Your task to perform on an android device: toggle wifi Image 0: 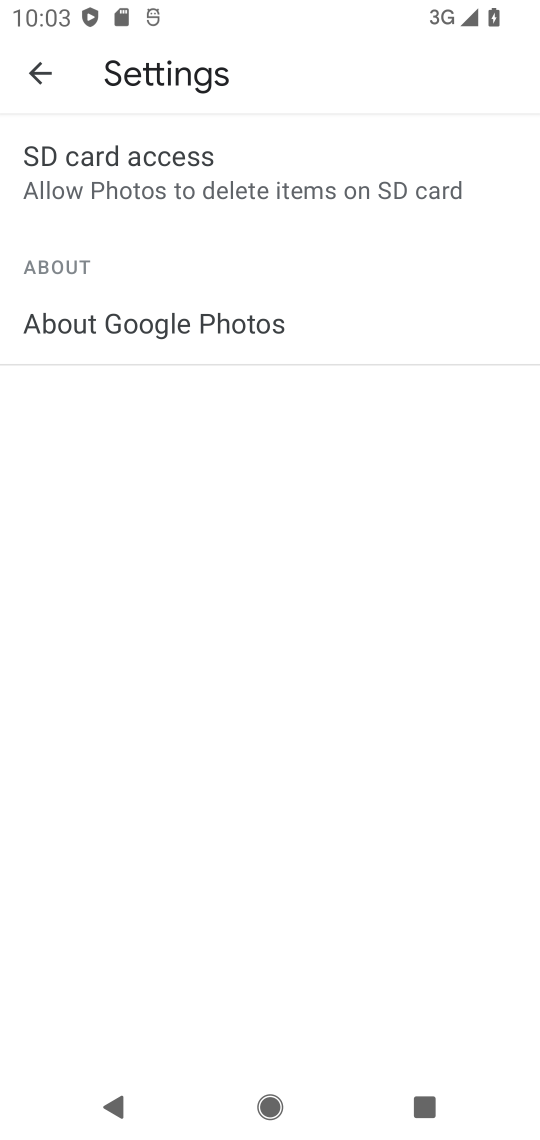
Step 0: press home button
Your task to perform on an android device: toggle wifi Image 1: 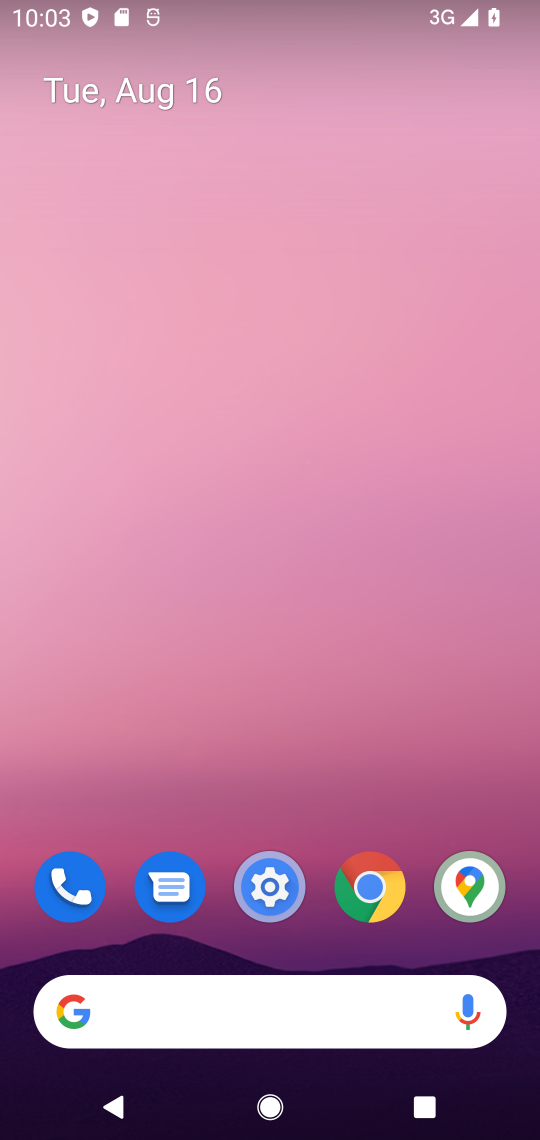
Step 1: drag from (428, 756) to (431, 122)
Your task to perform on an android device: toggle wifi Image 2: 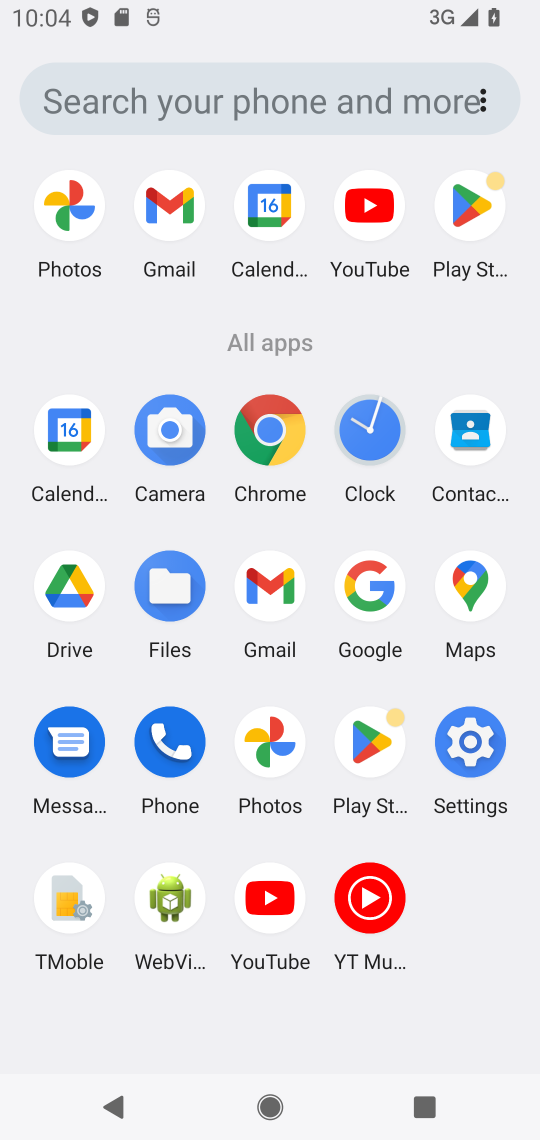
Step 2: click (460, 756)
Your task to perform on an android device: toggle wifi Image 3: 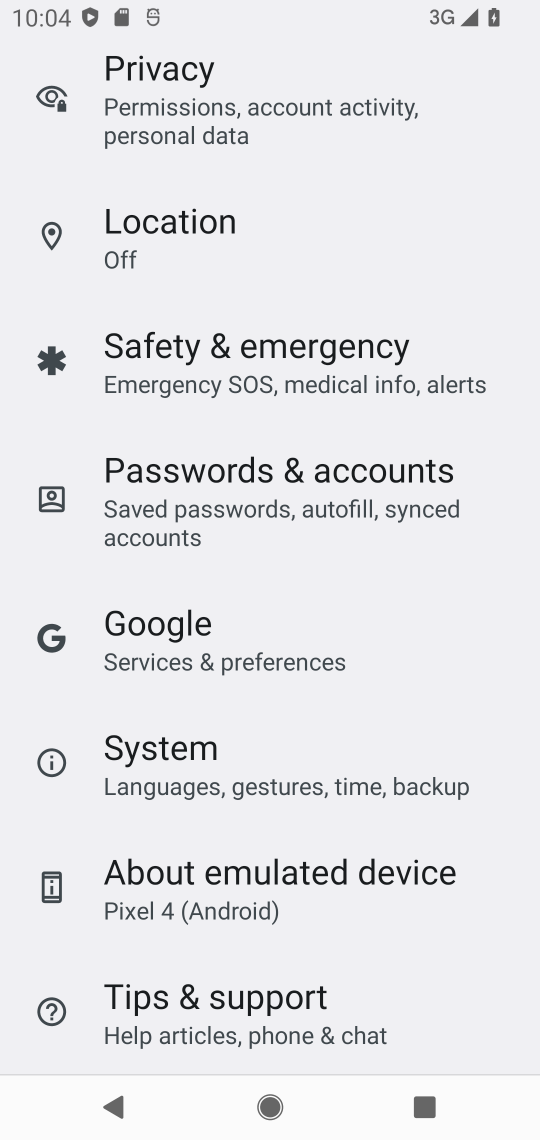
Step 3: drag from (492, 588) to (502, 784)
Your task to perform on an android device: toggle wifi Image 4: 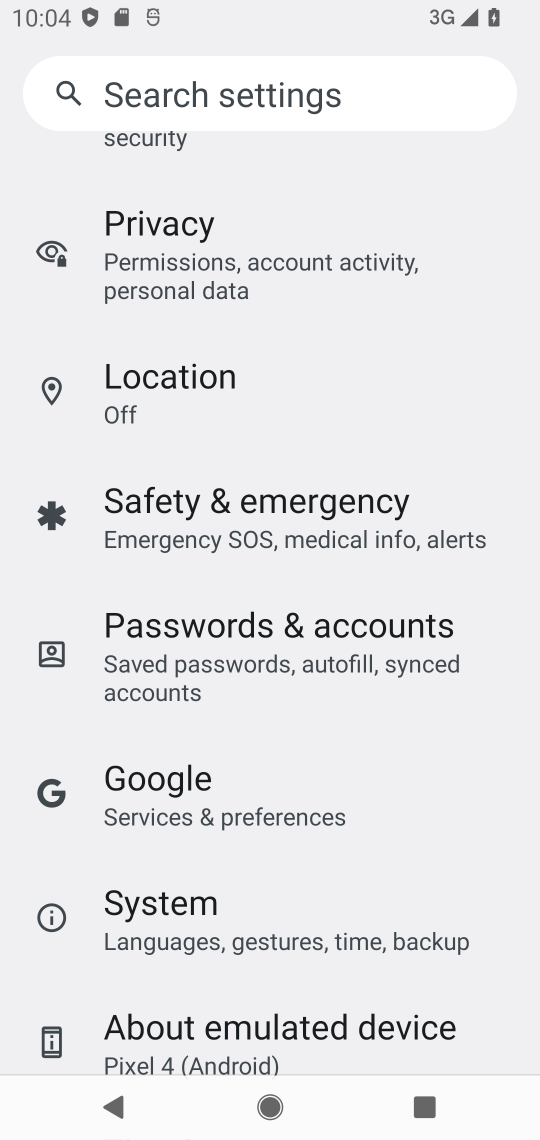
Step 4: drag from (505, 605) to (508, 740)
Your task to perform on an android device: toggle wifi Image 5: 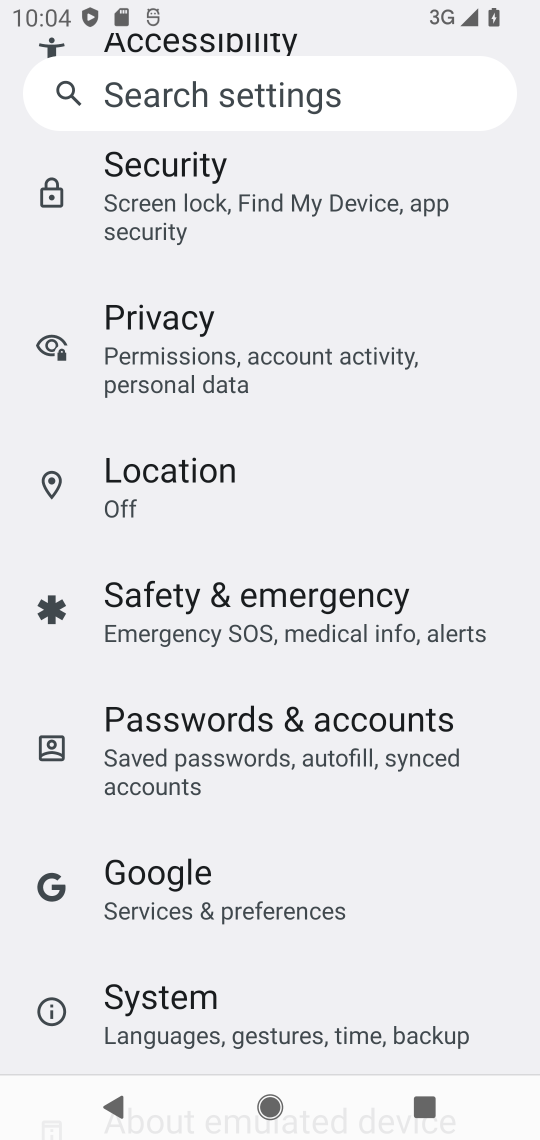
Step 5: drag from (504, 541) to (513, 738)
Your task to perform on an android device: toggle wifi Image 6: 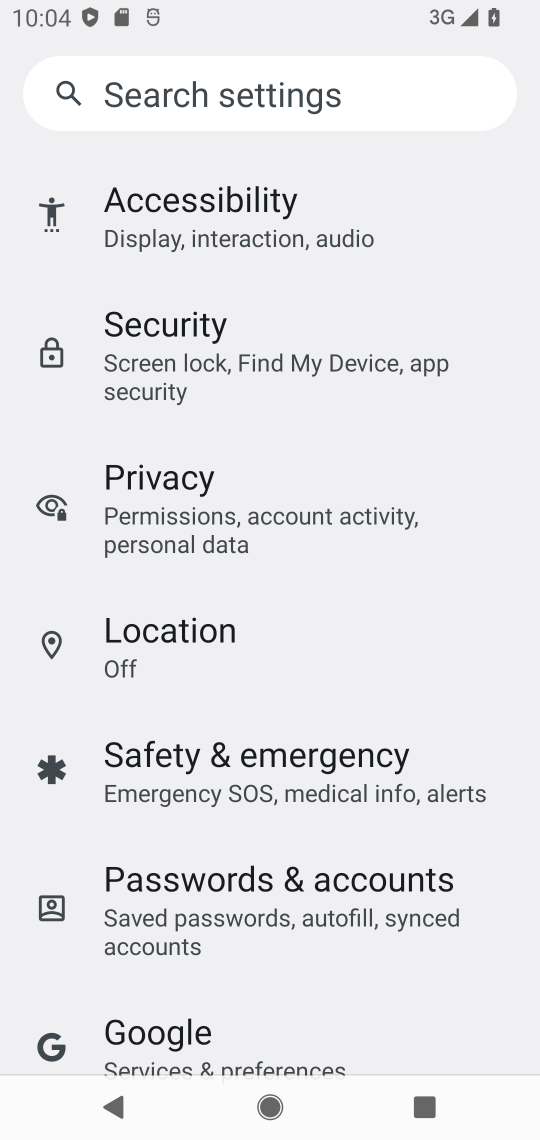
Step 6: drag from (502, 489) to (503, 686)
Your task to perform on an android device: toggle wifi Image 7: 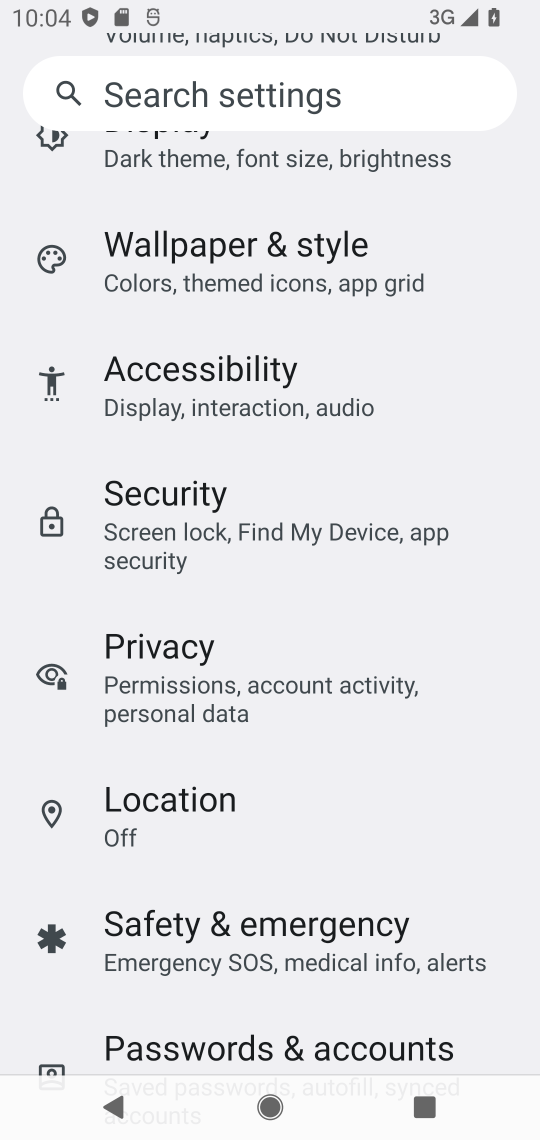
Step 7: drag from (481, 448) to (486, 675)
Your task to perform on an android device: toggle wifi Image 8: 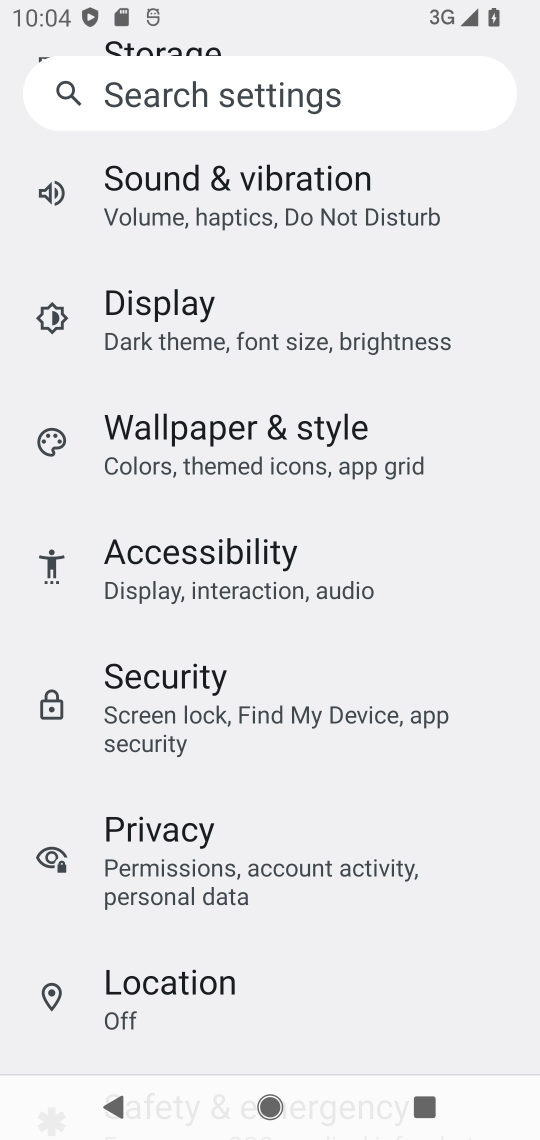
Step 8: drag from (483, 393) to (475, 655)
Your task to perform on an android device: toggle wifi Image 9: 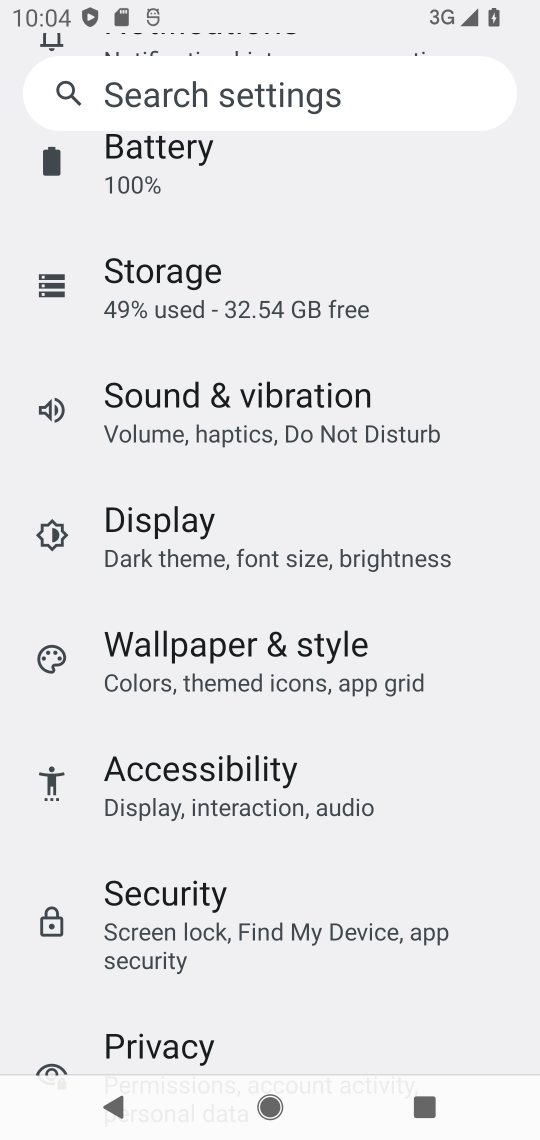
Step 9: drag from (499, 331) to (487, 563)
Your task to perform on an android device: toggle wifi Image 10: 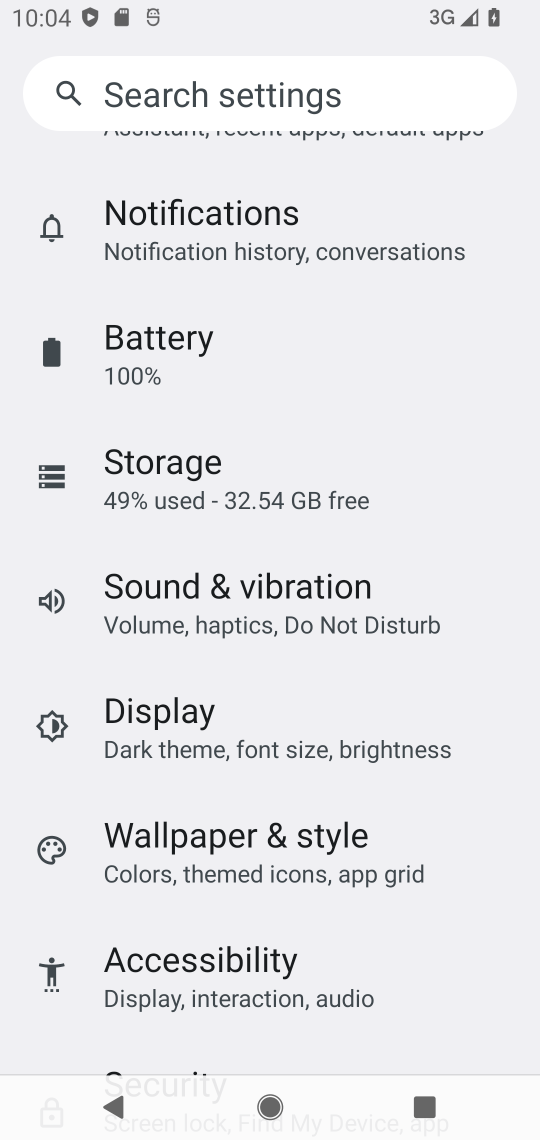
Step 10: drag from (494, 354) to (479, 554)
Your task to perform on an android device: toggle wifi Image 11: 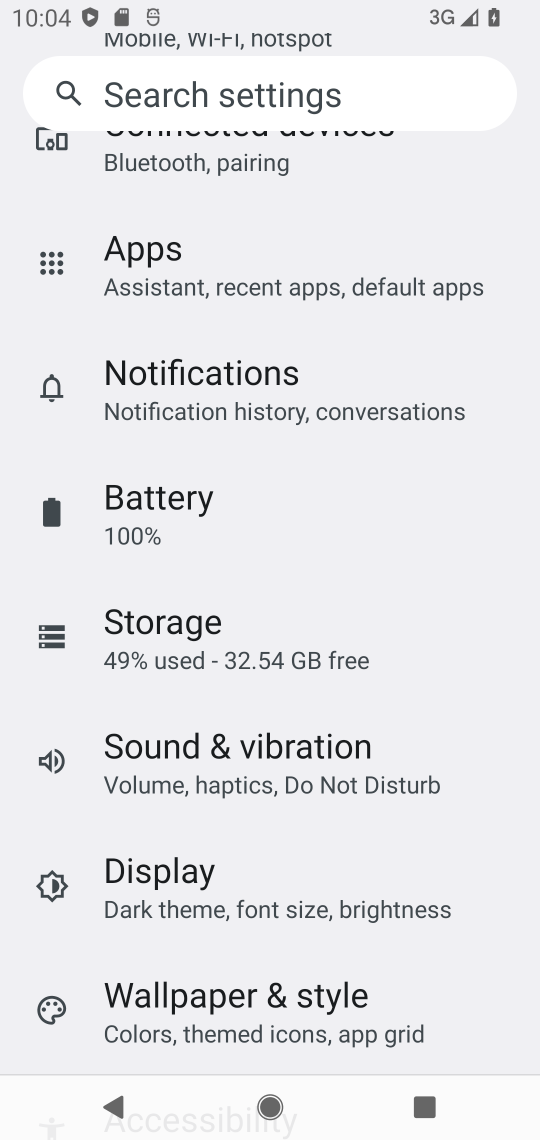
Step 11: drag from (482, 324) to (471, 555)
Your task to perform on an android device: toggle wifi Image 12: 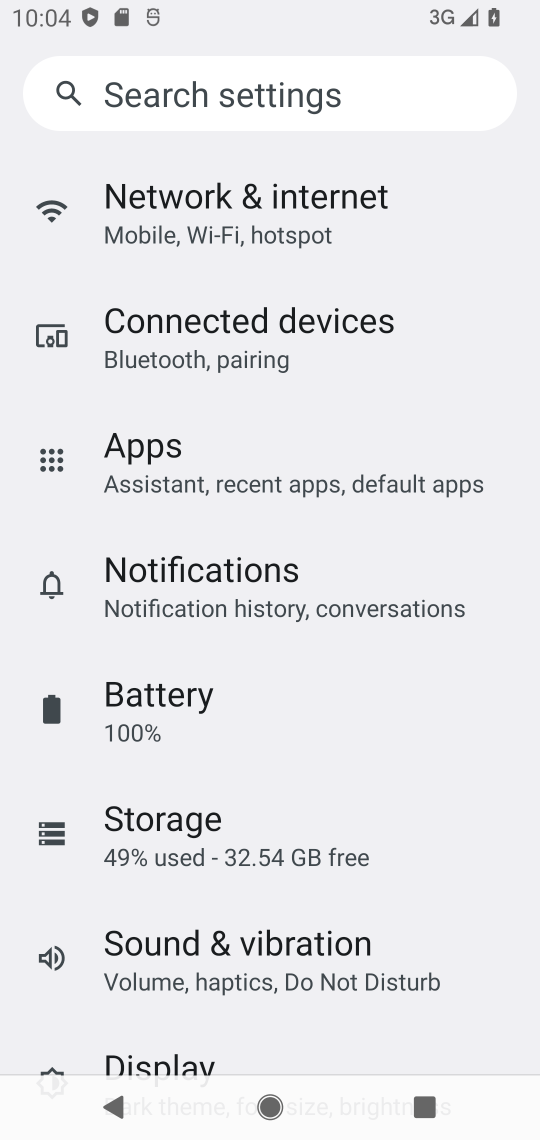
Step 12: drag from (443, 250) to (441, 511)
Your task to perform on an android device: toggle wifi Image 13: 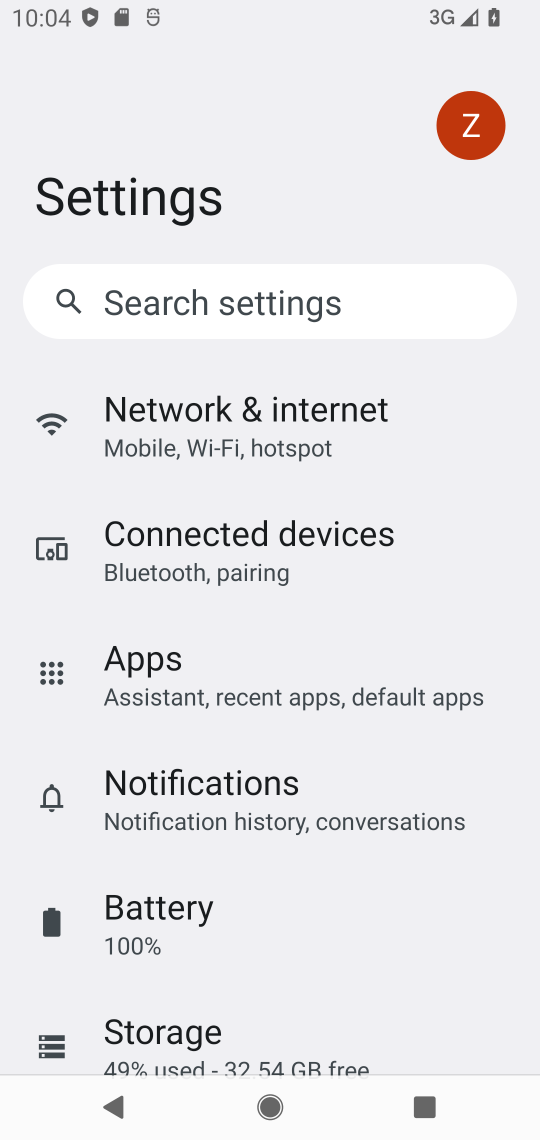
Step 13: click (311, 446)
Your task to perform on an android device: toggle wifi Image 14: 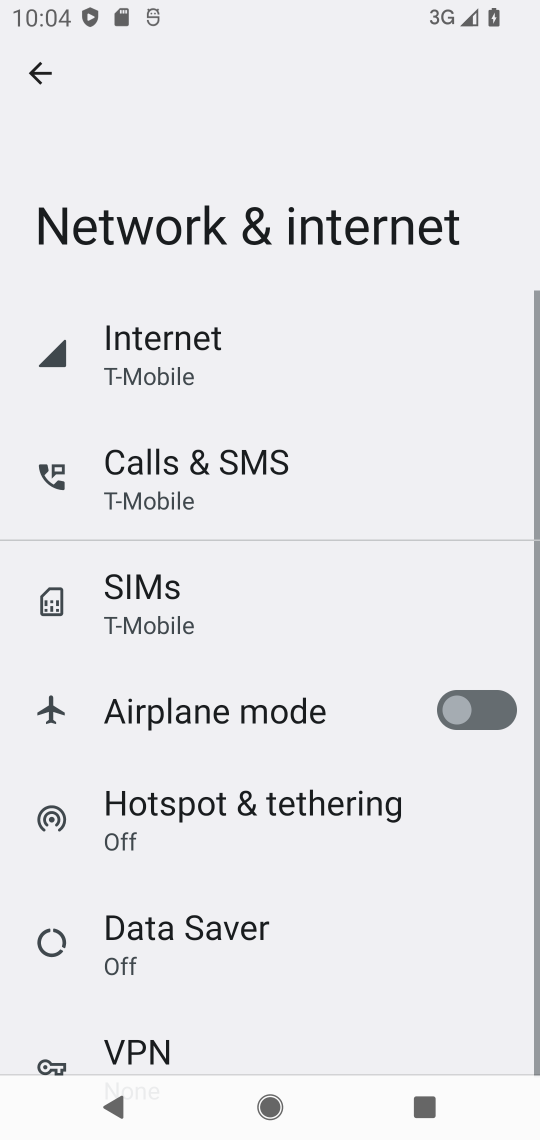
Step 14: click (171, 367)
Your task to perform on an android device: toggle wifi Image 15: 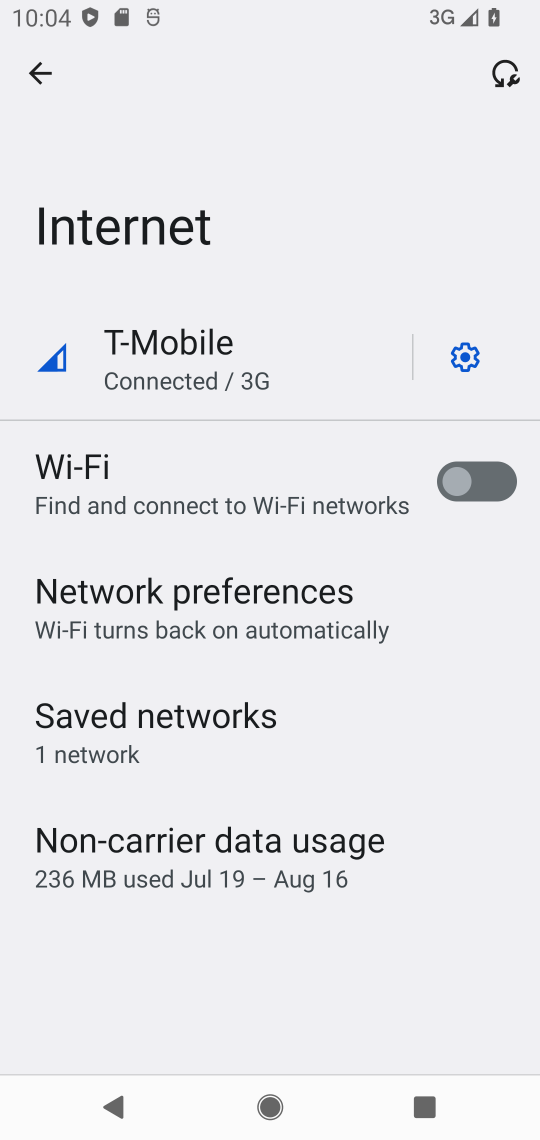
Step 15: click (455, 482)
Your task to perform on an android device: toggle wifi Image 16: 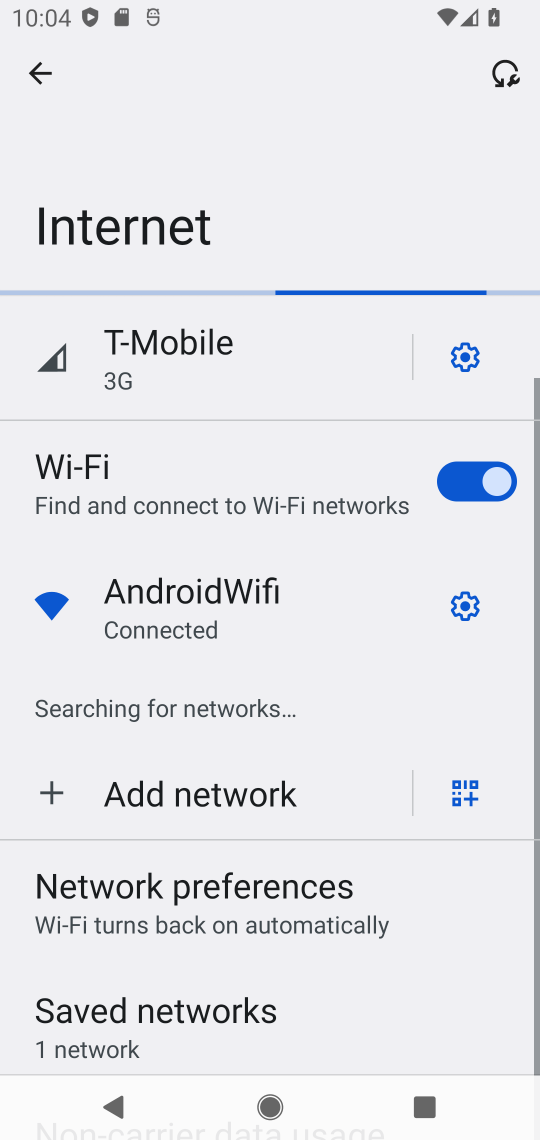
Step 16: task complete